Your task to perform on an android device: toggle data saver in the chrome app Image 0: 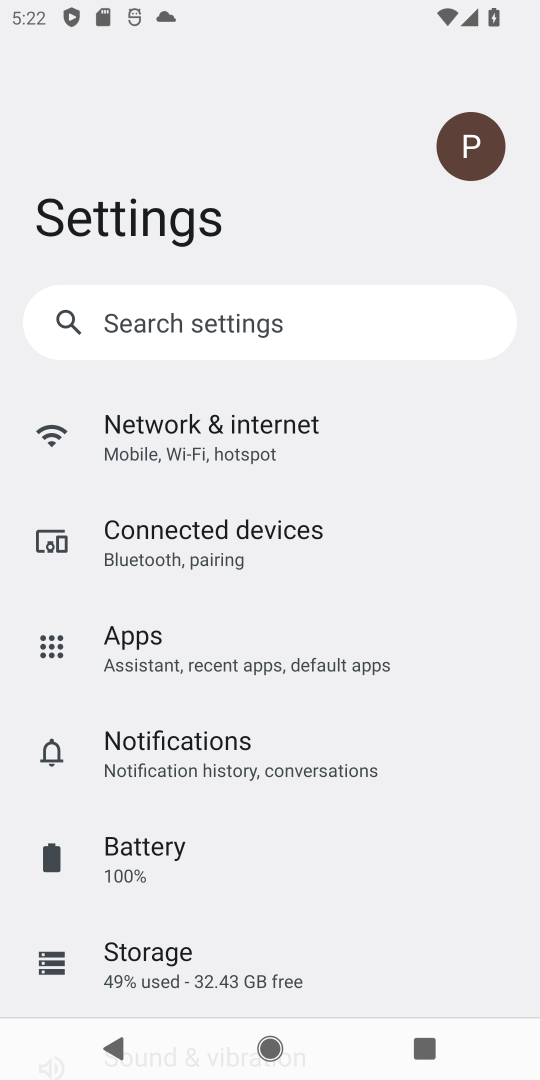
Step 0: press home button
Your task to perform on an android device: toggle data saver in the chrome app Image 1: 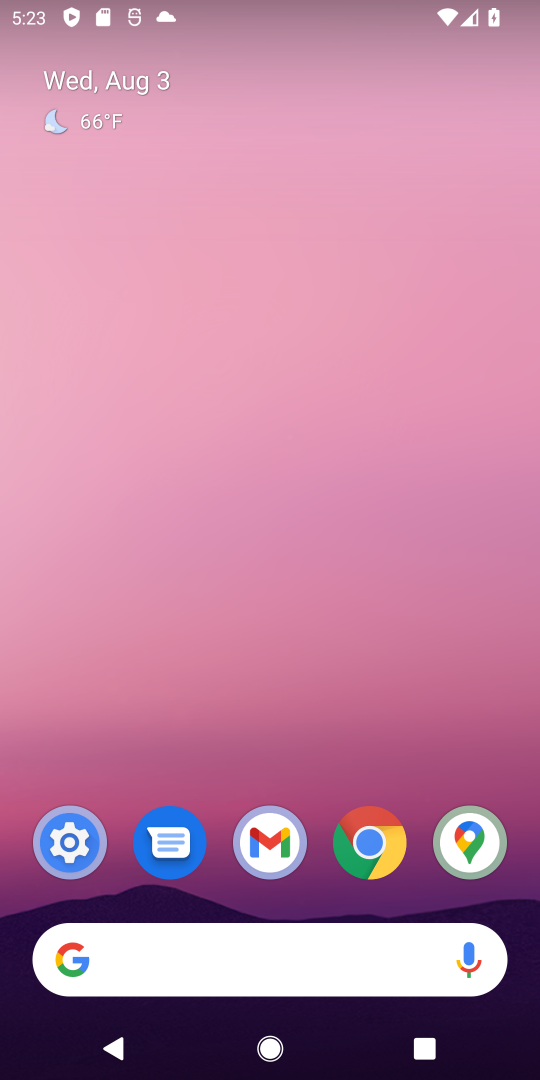
Step 1: click (376, 855)
Your task to perform on an android device: toggle data saver in the chrome app Image 2: 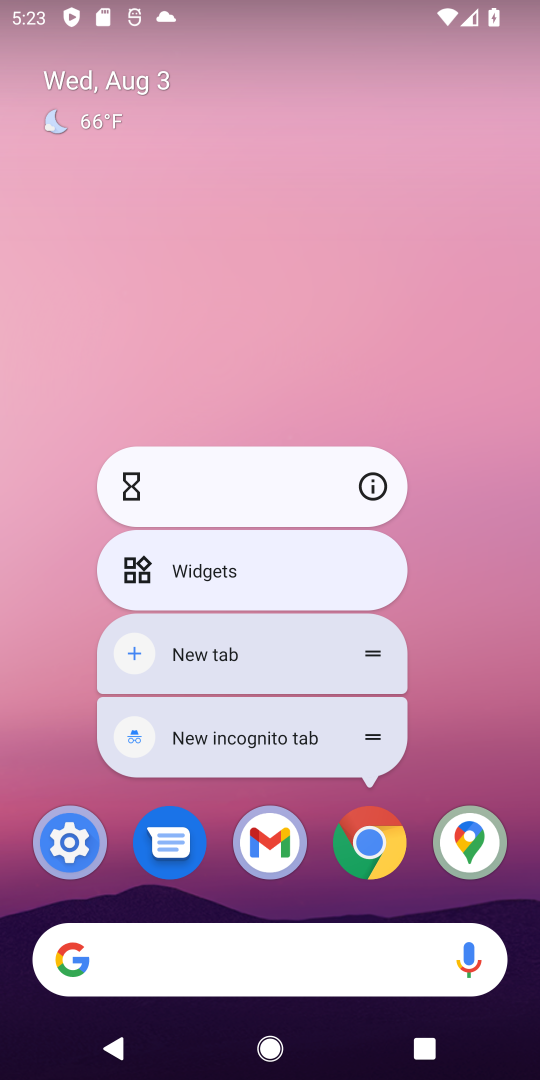
Step 2: click (376, 855)
Your task to perform on an android device: toggle data saver in the chrome app Image 3: 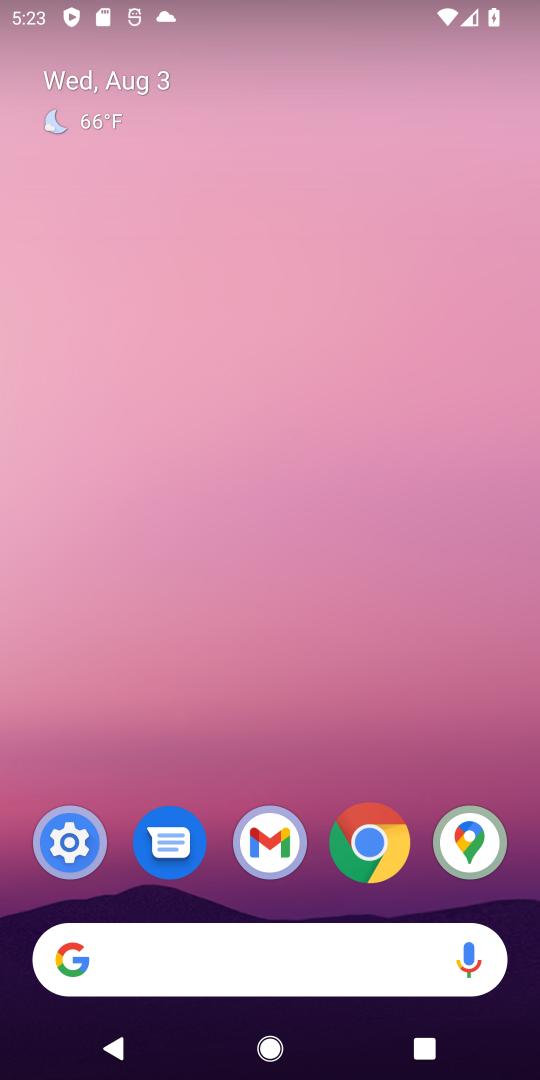
Step 3: click (376, 855)
Your task to perform on an android device: toggle data saver in the chrome app Image 4: 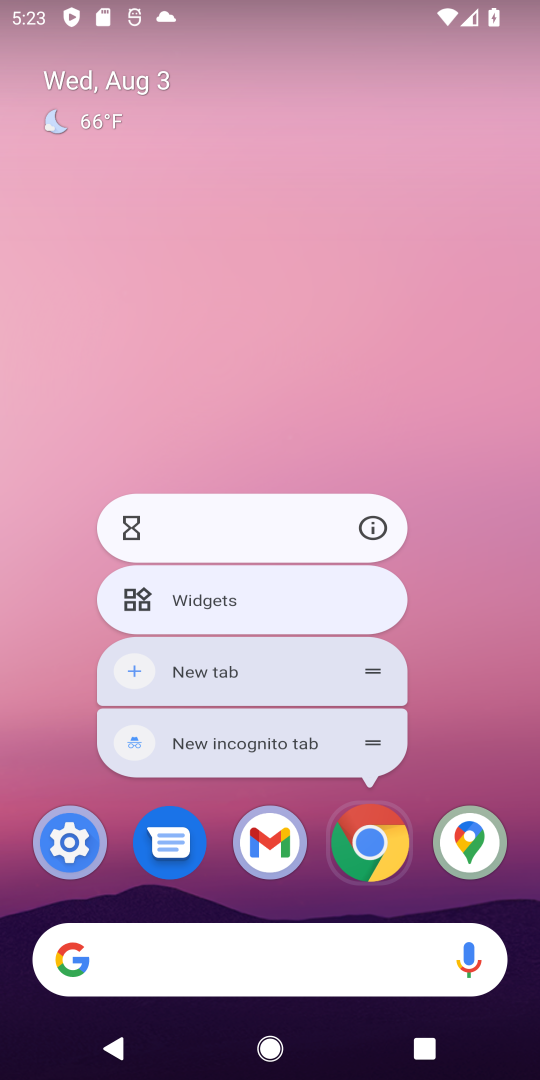
Step 4: click (376, 855)
Your task to perform on an android device: toggle data saver in the chrome app Image 5: 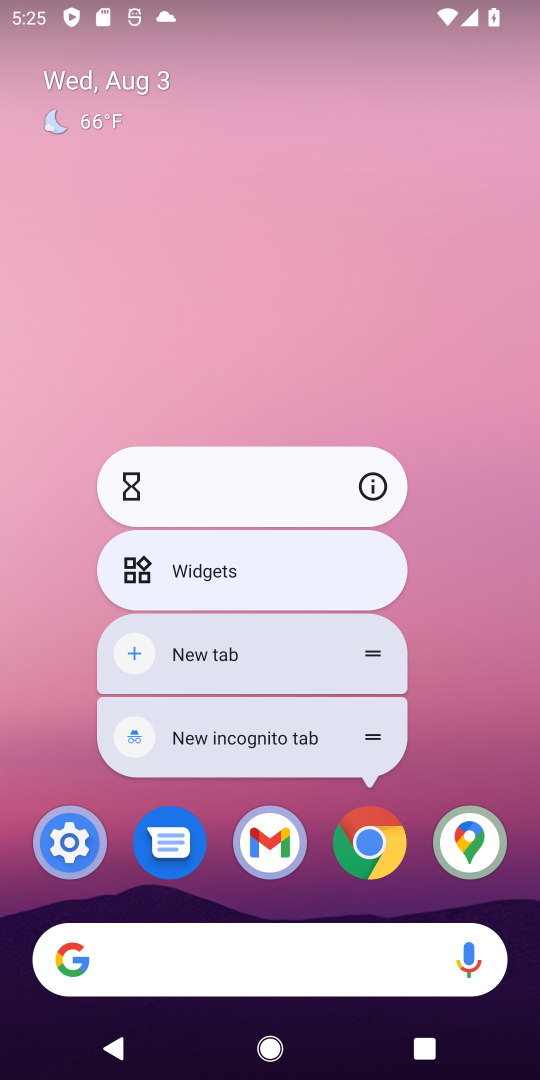
Step 5: click (361, 837)
Your task to perform on an android device: toggle data saver in the chrome app Image 6: 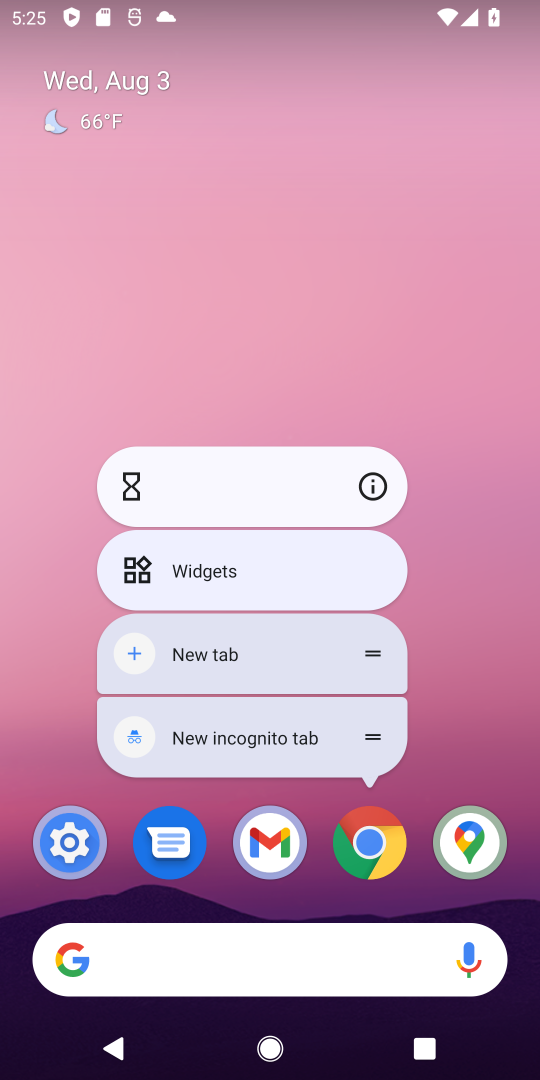
Step 6: click (364, 837)
Your task to perform on an android device: toggle data saver in the chrome app Image 7: 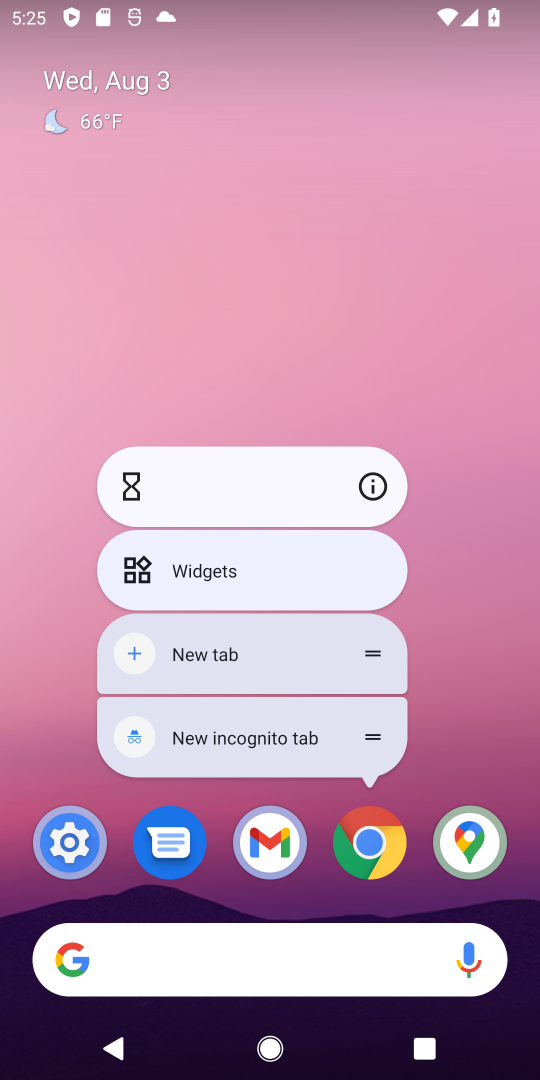
Step 7: click (370, 863)
Your task to perform on an android device: toggle data saver in the chrome app Image 8: 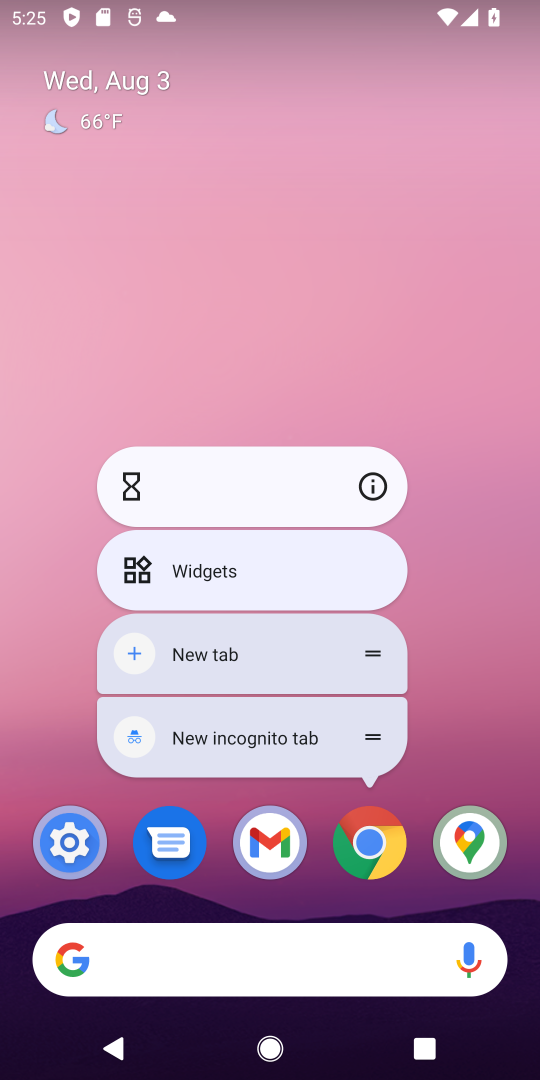
Step 8: click (370, 863)
Your task to perform on an android device: toggle data saver in the chrome app Image 9: 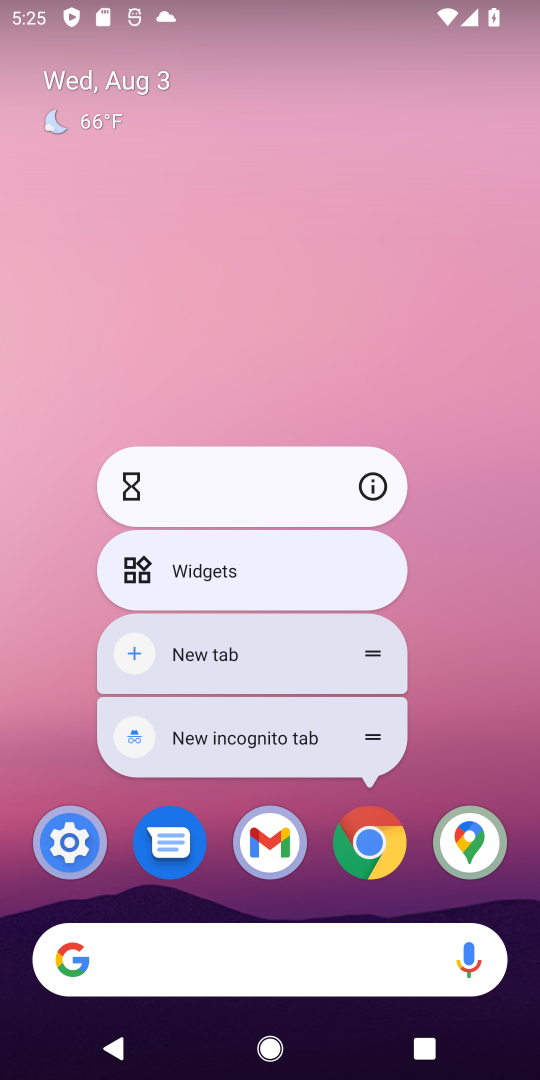
Step 9: click (362, 835)
Your task to perform on an android device: toggle data saver in the chrome app Image 10: 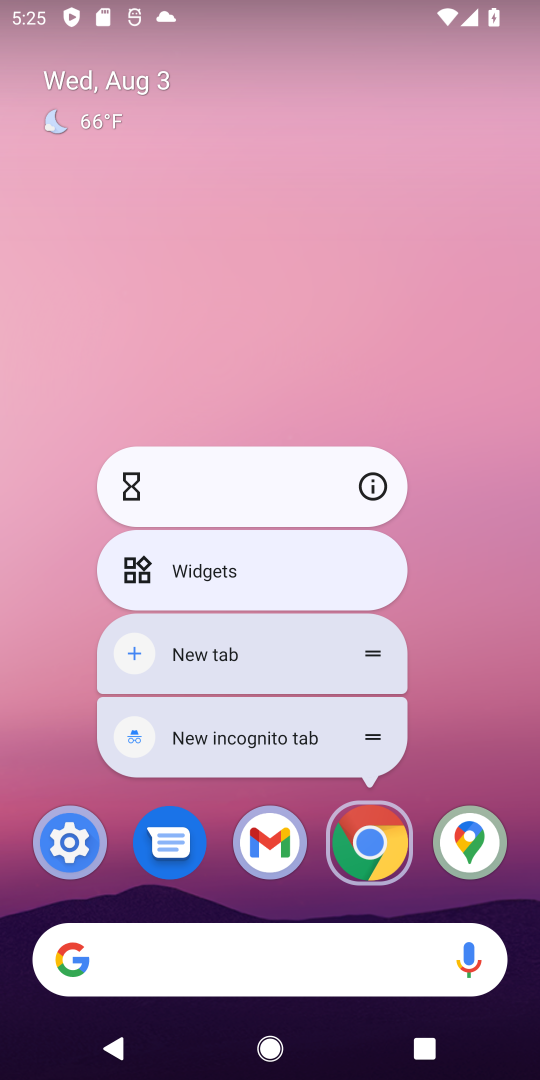
Step 10: click (362, 837)
Your task to perform on an android device: toggle data saver in the chrome app Image 11: 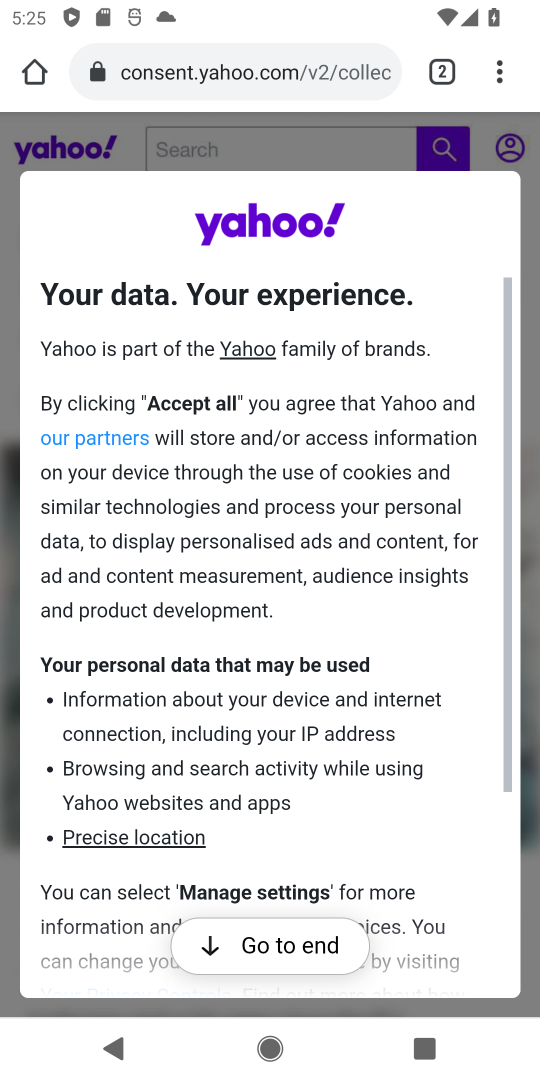
Step 11: click (501, 73)
Your task to perform on an android device: toggle data saver in the chrome app Image 12: 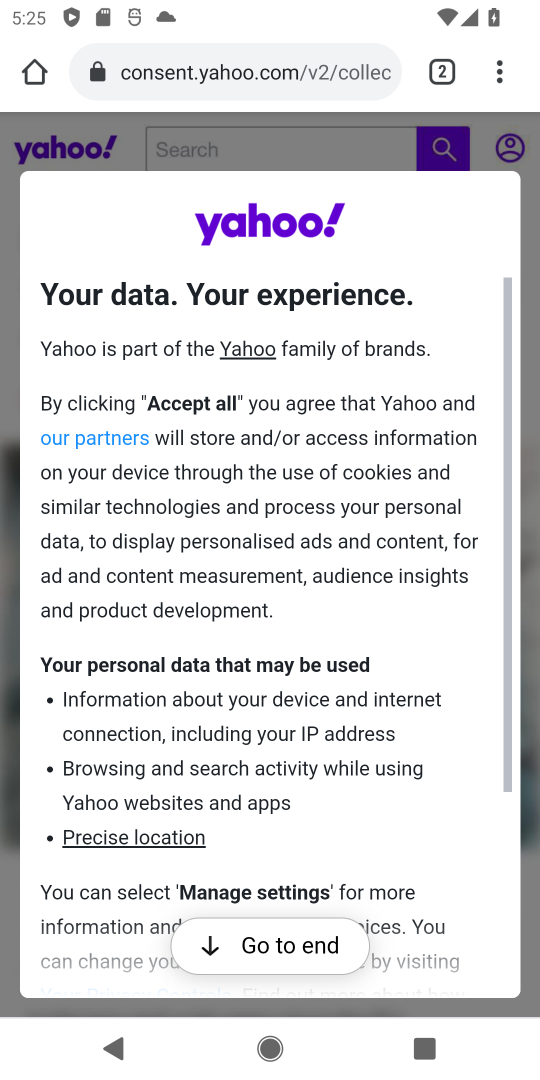
Step 12: click (501, 73)
Your task to perform on an android device: toggle data saver in the chrome app Image 13: 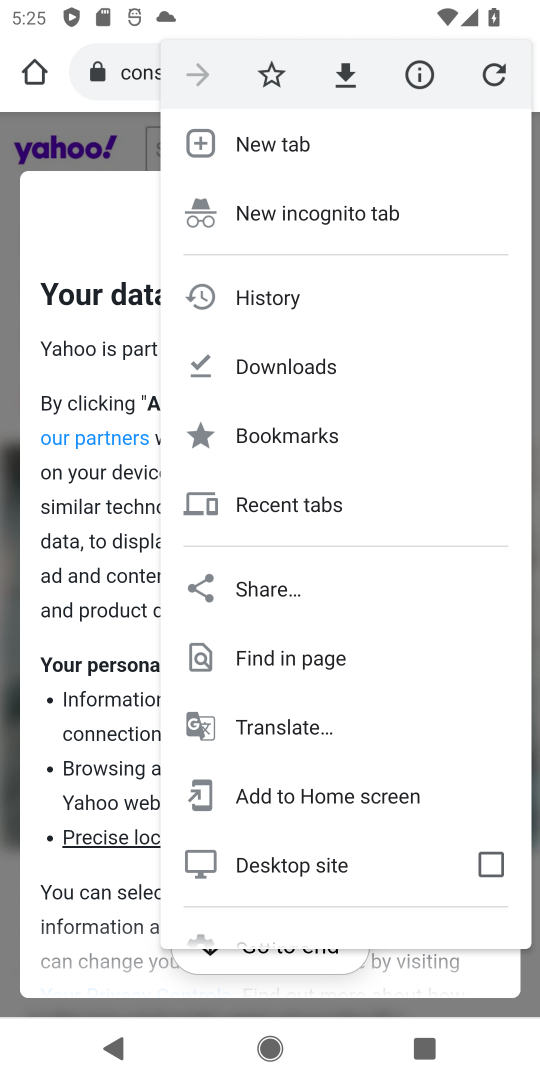
Step 13: drag from (279, 909) to (271, 285)
Your task to perform on an android device: toggle data saver in the chrome app Image 14: 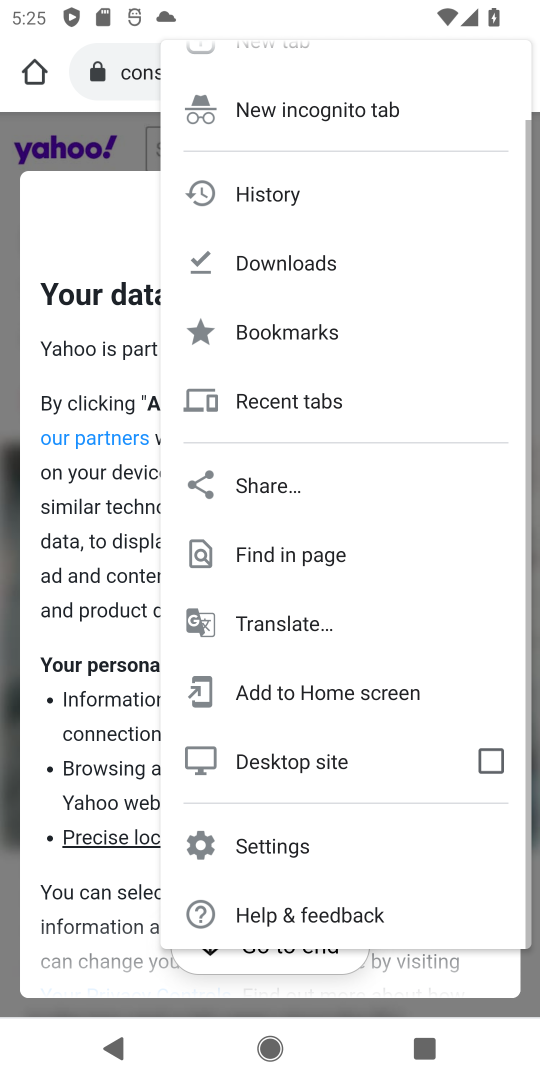
Step 14: click (307, 850)
Your task to perform on an android device: toggle data saver in the chrome app Image 15: 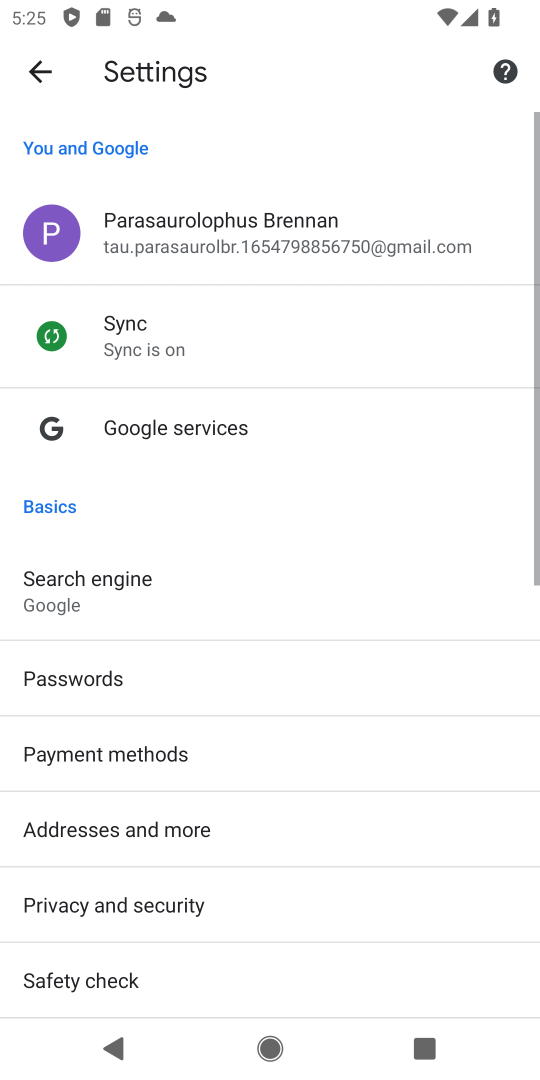
Step 15: drag from (305, 905) to (339, 114)
Your task to perform on an android device: toggle data saver in the chrome app Image 16: 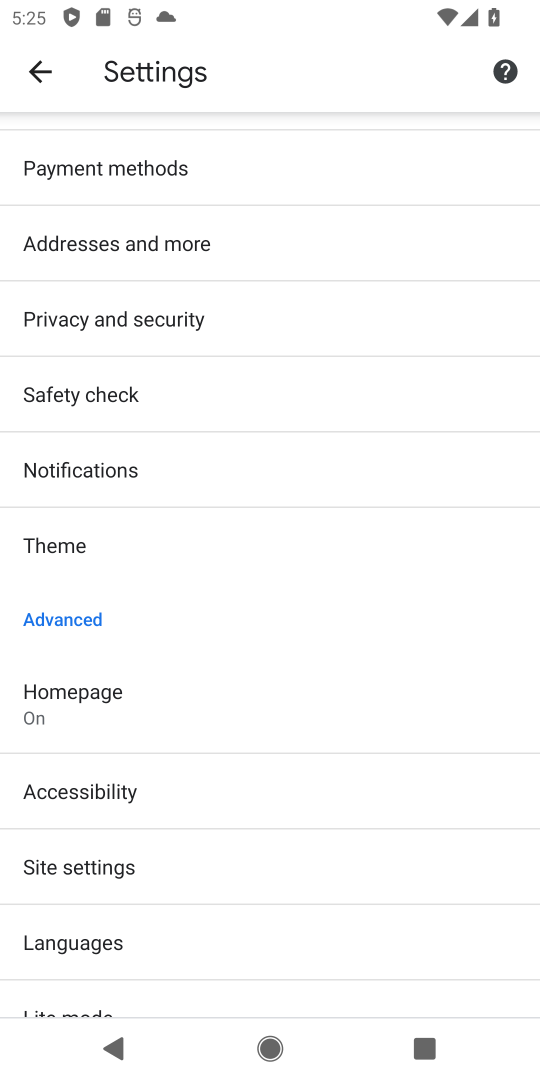
Step 16: drag from (250, 933) to (300, 688)
Your task to perform on an android device: toggle data saver in the chrome app Image 17: 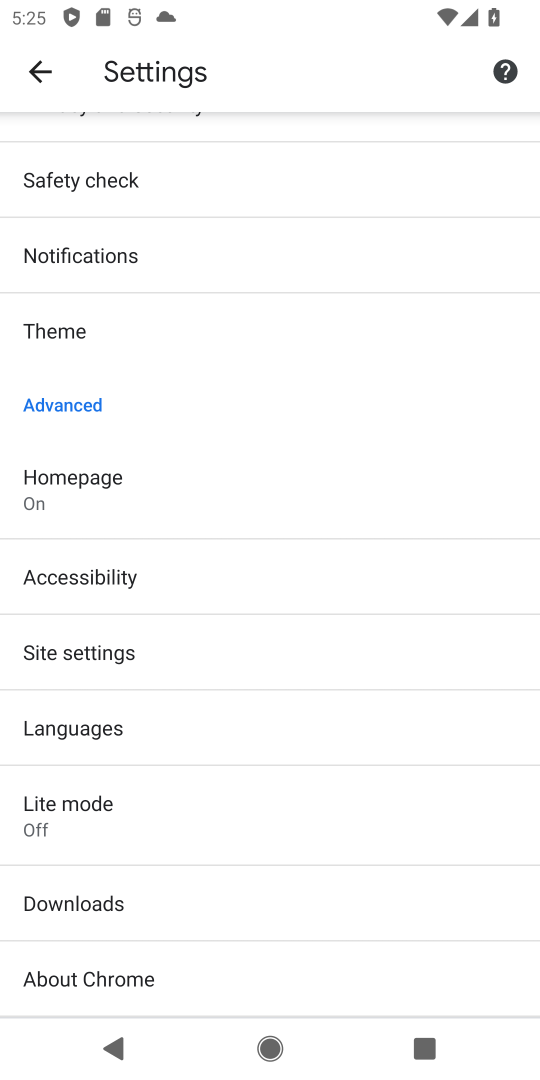
Step 17: click (196, 814)
Your task to perform on an android device: toggle data saver in the chrome app Image 18: 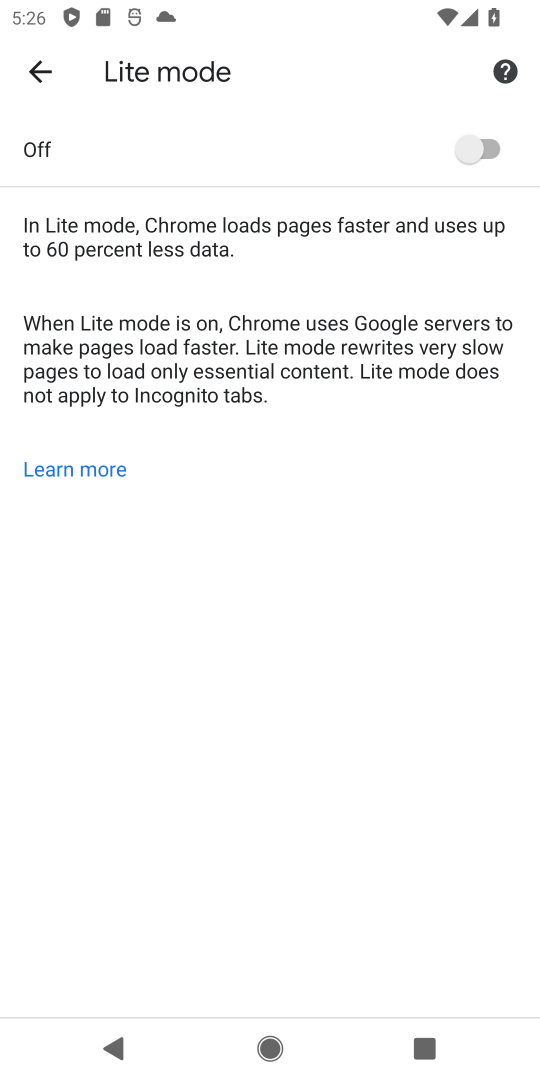
Step 18: click (475, 137)
Your task to perform on an android device: toggle data saver in the chrome app Image 19: 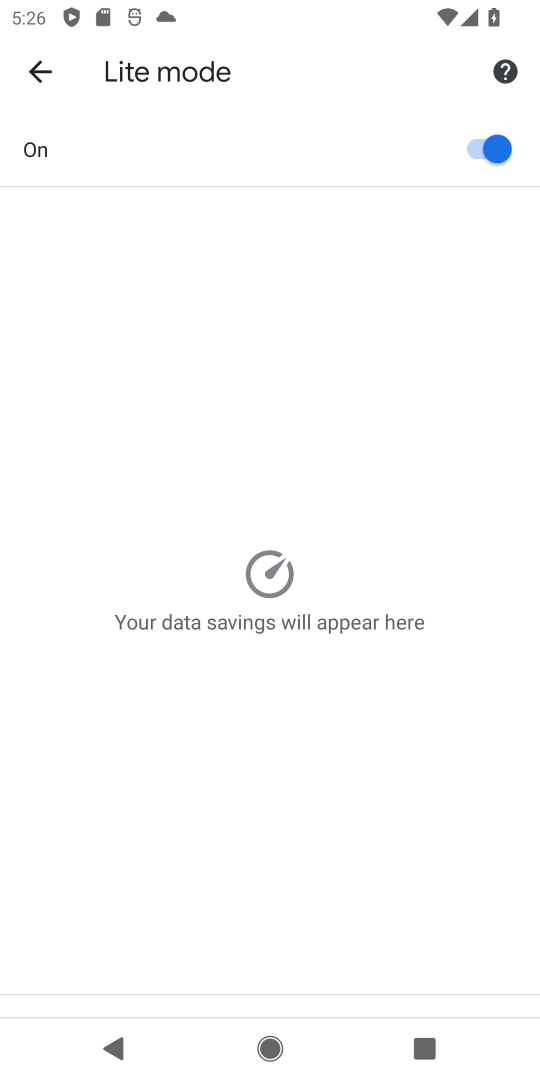
Step 19: task complete